Your task to perform on an android device: check the backup settings in the google photos Image 0: 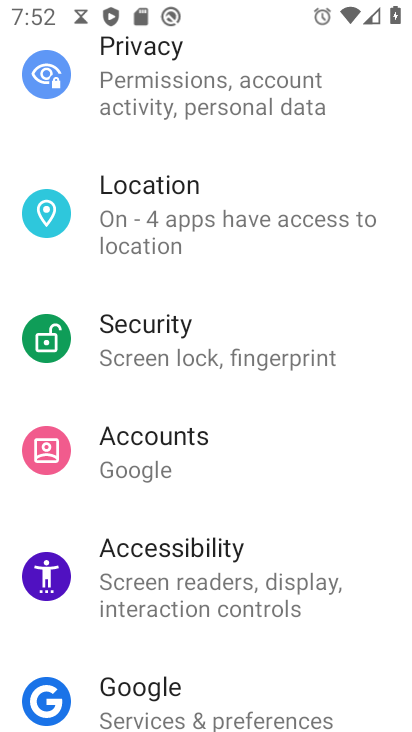
Step 0: press home button
Your task to perform on an android device: check the backup settings in the google photos Image 1: 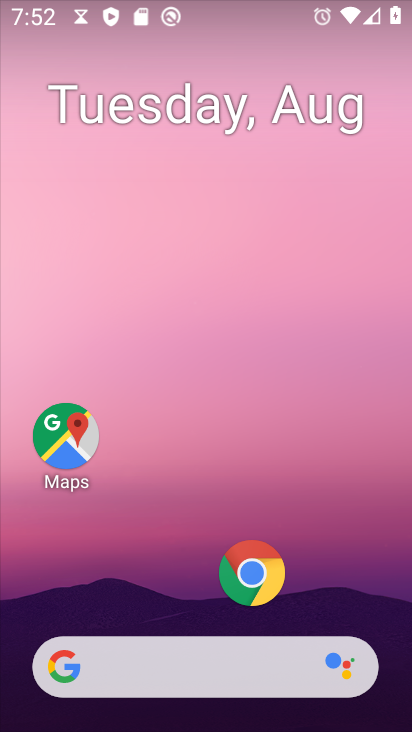
Step 1: drag from (183, 616) to (226, 4)
Your task to perform on an android device: check the backup settings in the google photos Image 2: 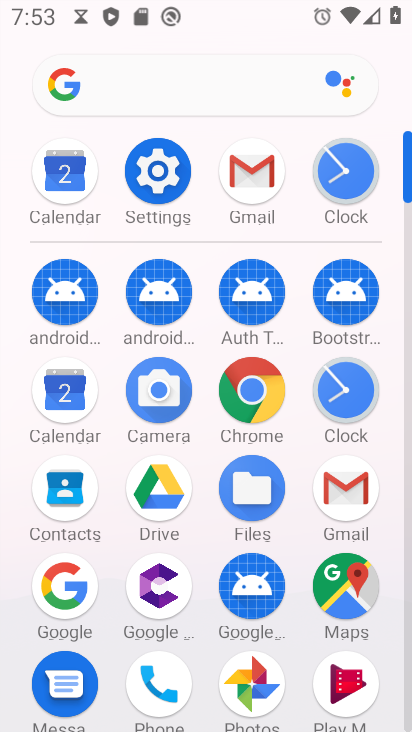
Step 2: click (247, 675)
Your task to perform on an android device: check the backup settings in the google photos Image 3: 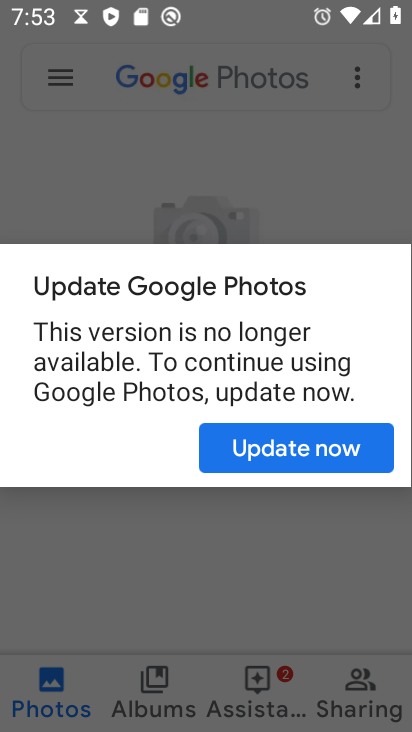
Step 3: click (303, 447)
Your task to perform on an android device: check the backup settings in the google photos Image 4: 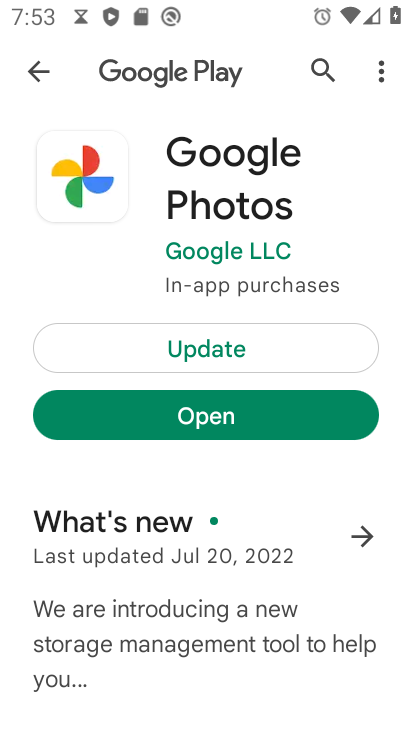
Step 4: click (218, 356)
Your task to perform on an android device: check the backup settings in the google photos Image 5: 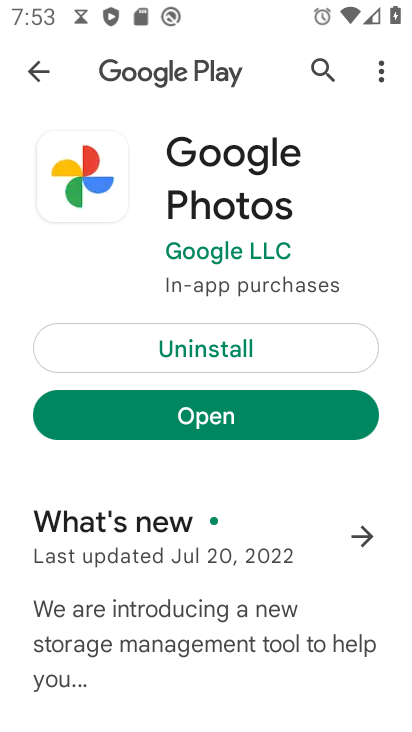
Step 5: click (207, 421)
Your task to perform on an android device: check the backup settings in the google photos Image 6: 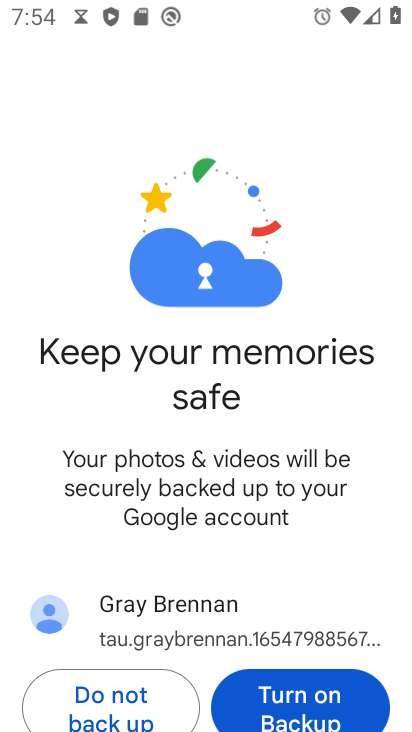
Step 6: drag from (207, 629) to (235, 248)
Your task to perform on an android device: check the backup settings in the google photos Image 7: 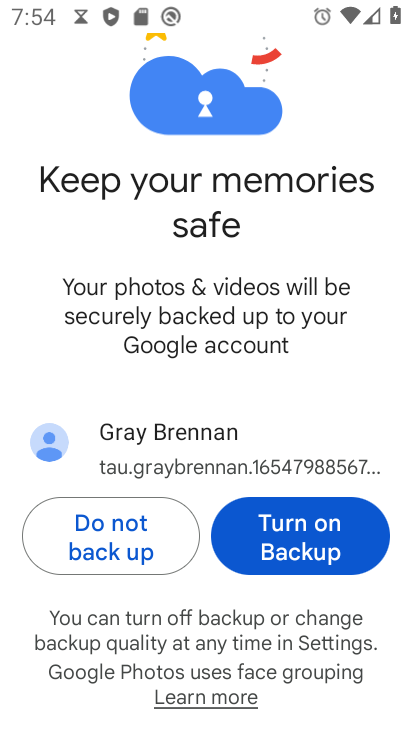
Step 7: click (331, 536)
Your task to perform on an android device: check the backup settings in the google photos Image 8: 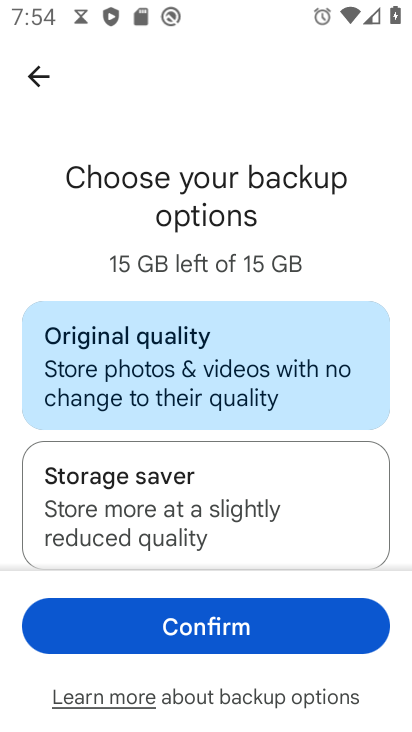
Step 8: click (223, 621)
Your task to perform on an android device: check the backup settings in the google photos Image 9: 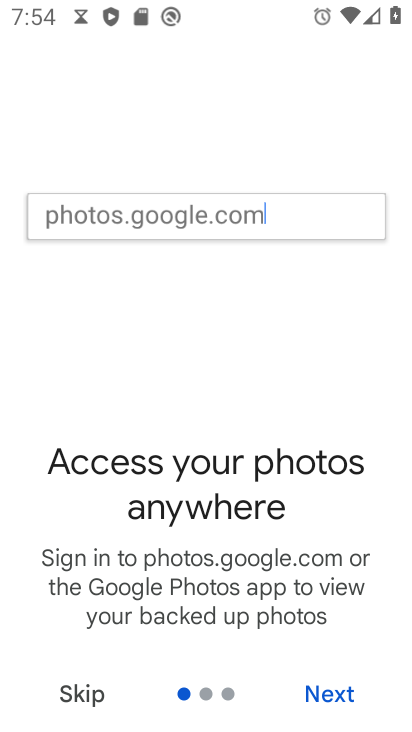
Step 9: click (83, 698)
Your task to perform on an android device: check the backup settings in the google photos Image 10: 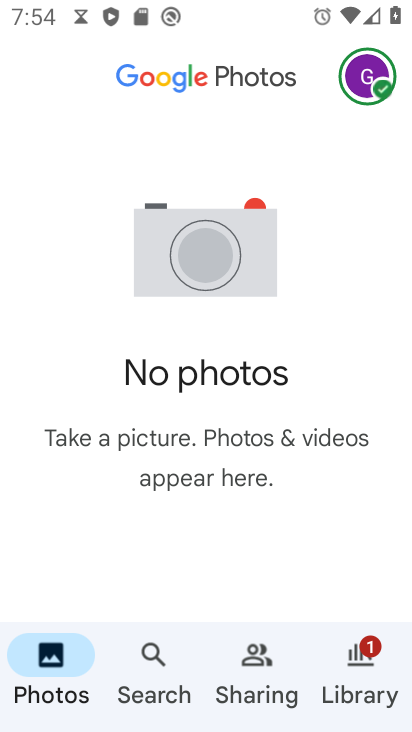
Step 10: click (373, 84)
Your task to perform on an android device: check the backup settings in the google photos Image 11: 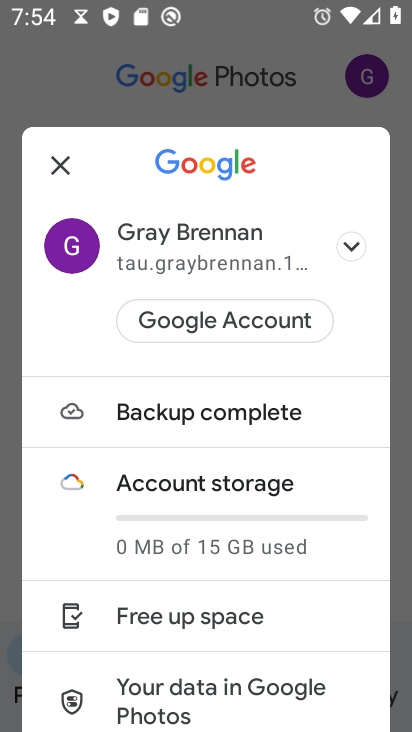
Step 11: click (214, 400)
Your task to perform on an android device: check the backup settings in the google photos Image 12: 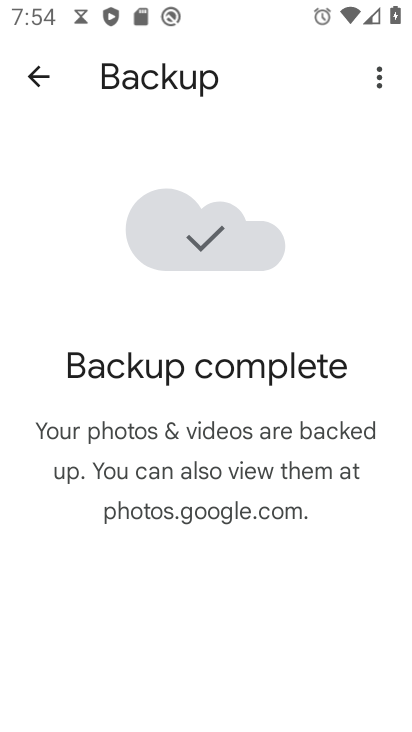
Step 12: click (382, 72)
Your task to perform on an android device: check the backup settings in the google photos Image 13: 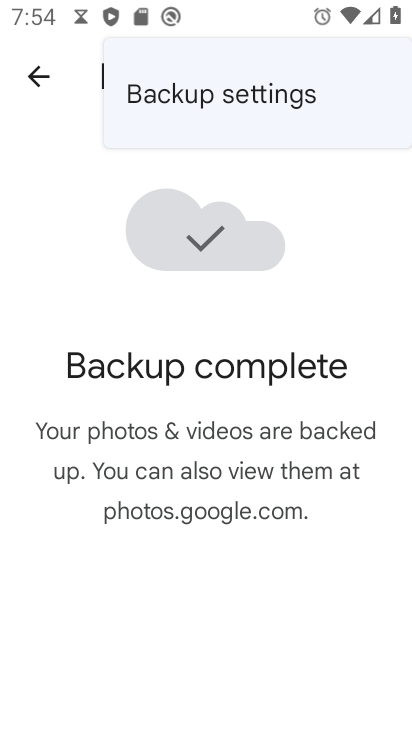
Step 13: click (279, 105)
Your task to perform on an android device: check the backup settings in the google photos Image 14: 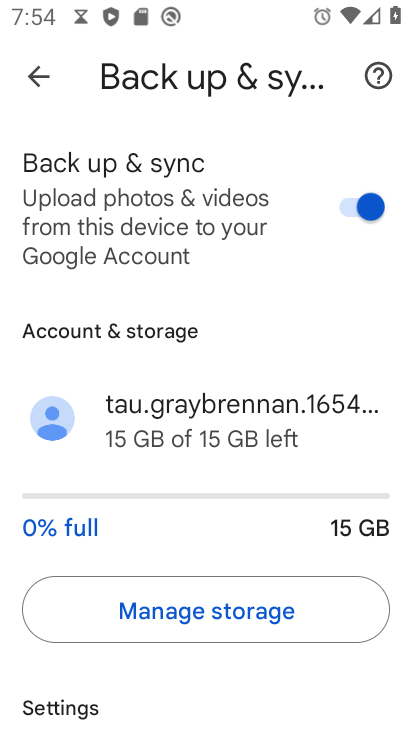
Step 14: task complete